Your task to perform on an android device: Go to accessibility settings Image 0: 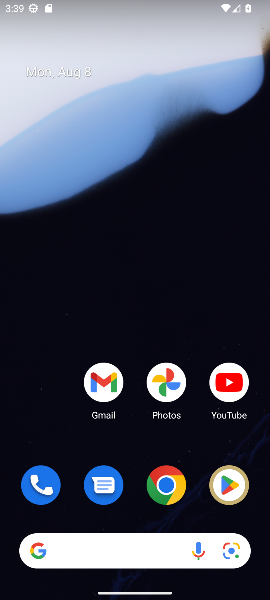
Step 0: drag from (120, 444) to (71, 155)
Your task to perform on an android device: Go to accessibility settings Image 1: 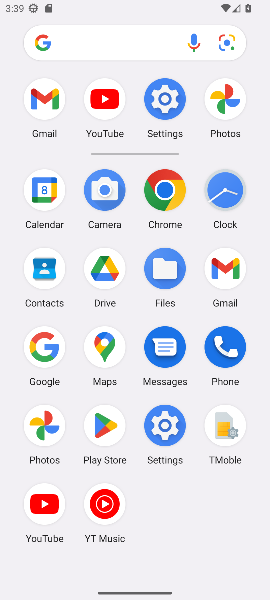
Step 1: click (159, 419)
Your task to perform on an android device: Go to accessibility settings Image 2: 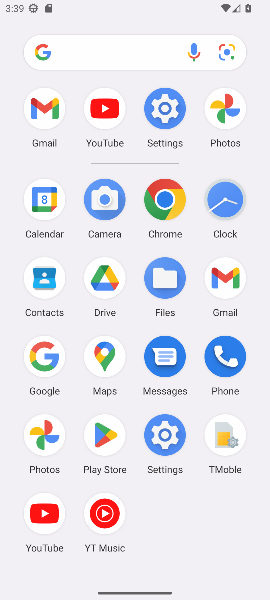
Step 2: click (163, 434)
Your task to perform on an android device: Go to accessibility settings Image 3: 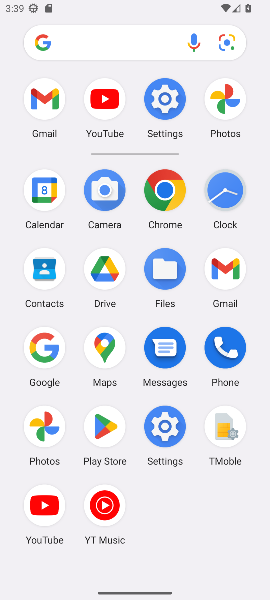
Step 3: click (163, 434)
Your task to perform on an android device: Go to accessibility settings Image 4: 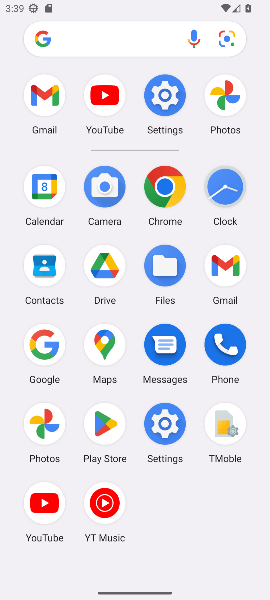
Step 4: click (164, 434)
Your task to perform on an android device: Go to accessibility settings Image 5: 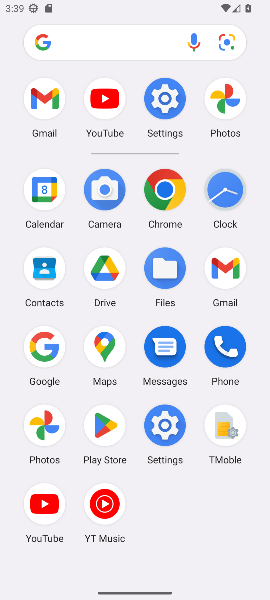
Step 5: click (165, 432)
Your task to perform on an android device: Go to accessibility settings Image 6: 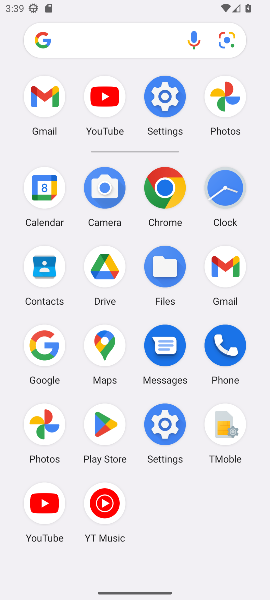
Step 6: click (165, 432)
Your task to perform on an android device: Go to accessibility settings Image 7: 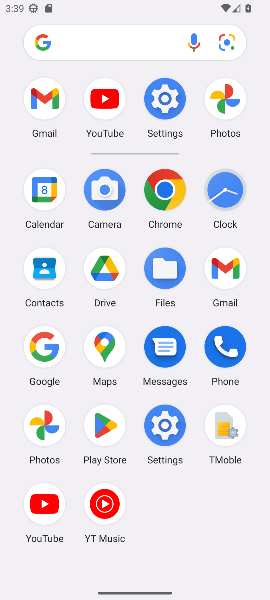
Step 7: click (166, 432)
Your task to perform on an android device: Go to accessibility settings Image 8: 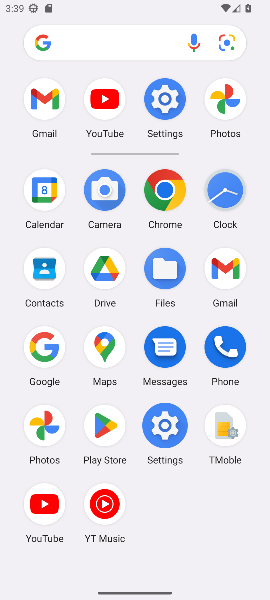
Step 8: click (166, 432)
Your task to perform on an android device: Go to accessibility settings Image 9: 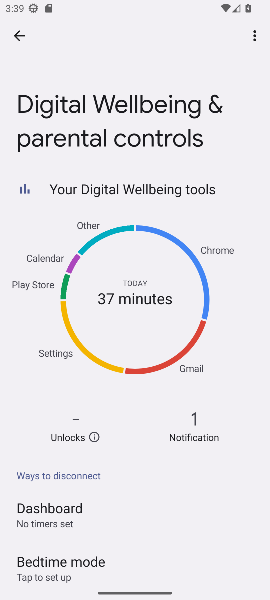
Step 9: click (18, 33)
Your task to perform on an android device: Go to accessibility settings Image 10: 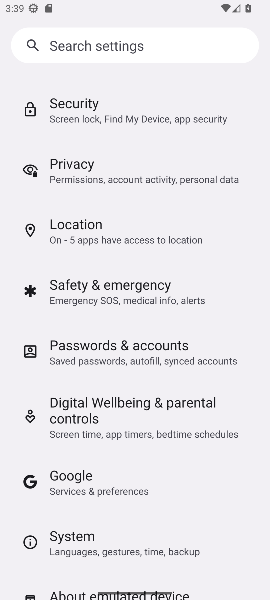
Step 10: press back button
Your task to perform on an android device: Go to accessibility settings Image 11: 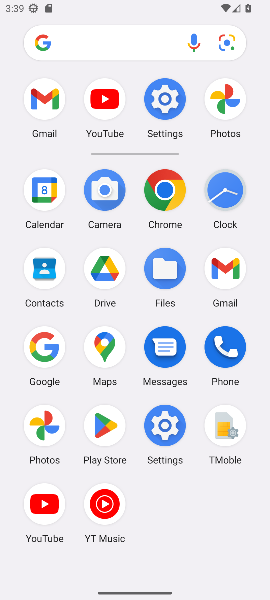
Step 11: click (168, 197)
Your task to perform on an android device: Go to accessibility settings Image 12: 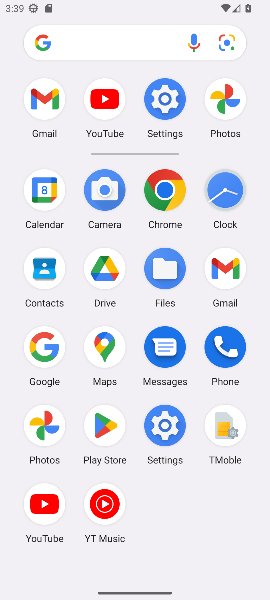
Step 12: click (168, 197)
Your task to perform on an android device: Go to accessibility settings Image 13: 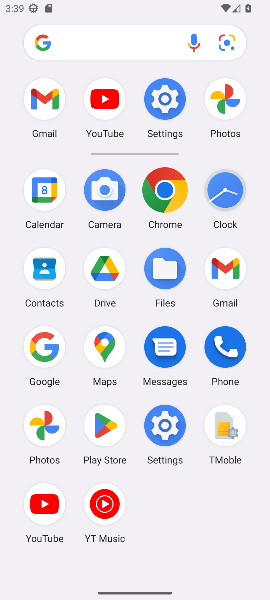
Step 13: click (168, 197)
Your task to perform on an android device: Go to accessibility settings Image 14: 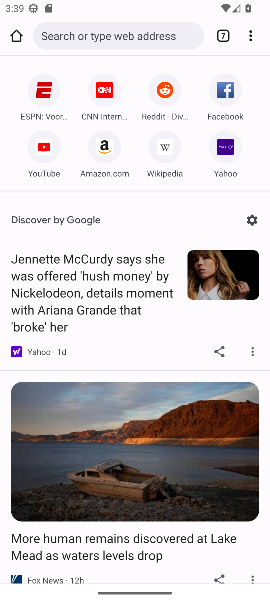
Step 14: click (168, 197)
Your task to perform on an android device: Go to accessibility settings Image 15: 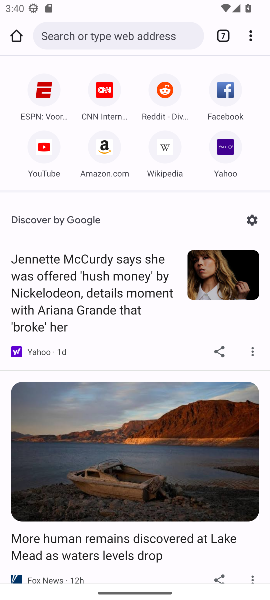
Step 15: click (248, 34)
Your task to perform on an android device: Go to accessibility settings Image 16: 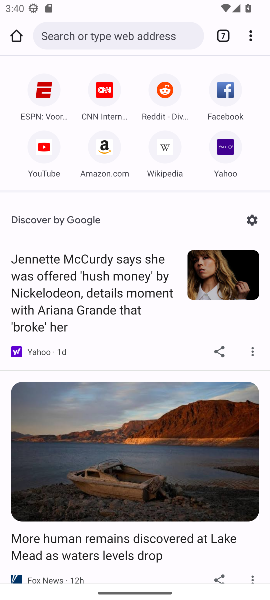
Step 16: drag from (252, 33) to (136, 336)
Your task to perform on an android device: Go to accessibility settings Image 17: 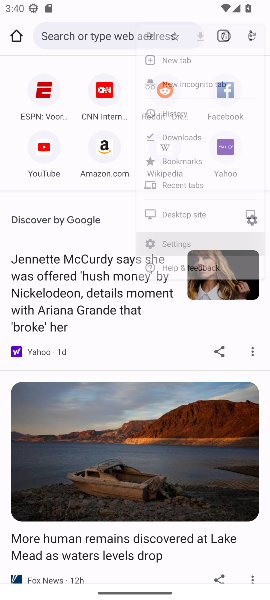
Step 17: click (137, 337)
Your task to perform on an android device: Go to accessibility settings Image 18: 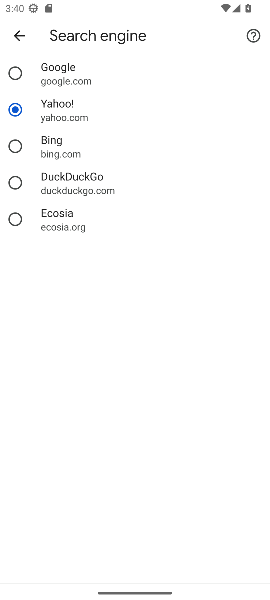
Step 18: click (13, 35)
Your task to perform on an android device: Go to accessibility settings Image 19: 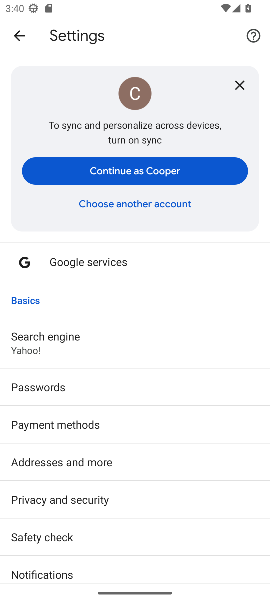
Step 19: drag from (100, 490) to (96, 232)
Your task to perform on an android device: Go to accessibility settings Image 20: 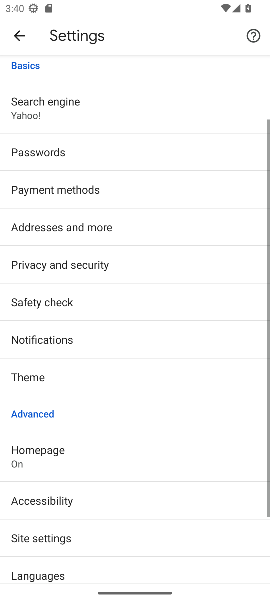
Step 20: drag from (99, 380) to (103, 183)
Your task to perform on an android device: Go to accessibility settings Image 21: 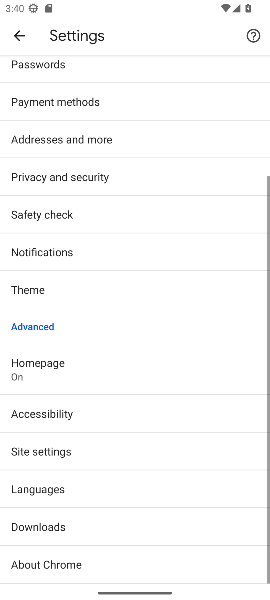
Step 21: drag from (143, 337) to (143, 130)
Your task to perform on an android device: Go to accessibility settings Image 22: 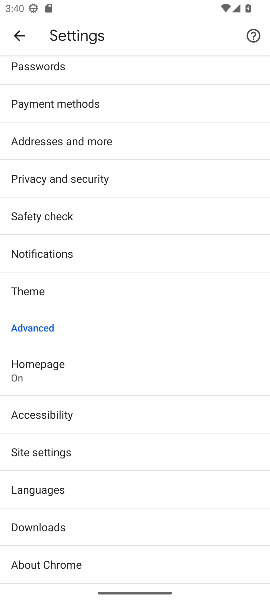
Step 22: drag from (64, 513) to (30, 172)
Your task to perform on an android device: Go to accessibility settings Image 23: 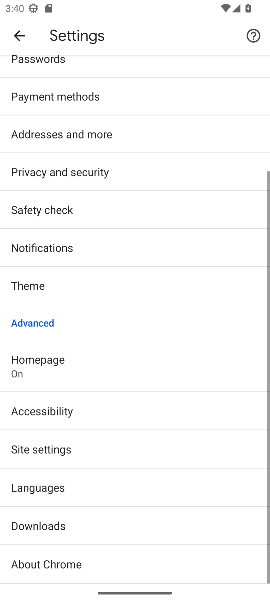
Step 23: drag from (79, 447) to (79, 140)
Your task to perform on an android device: Go to accessibility settings Image 24: 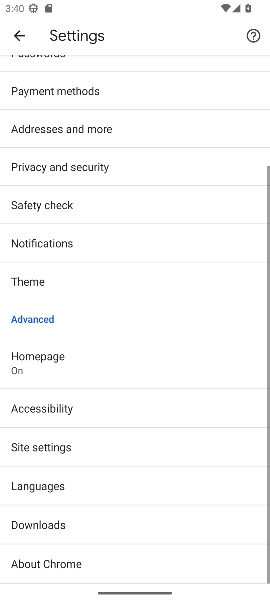
Step 24: drag from (79, 432) to (78, 210)
Your task to perform on an android device: Go to accessibility settings Image 25: 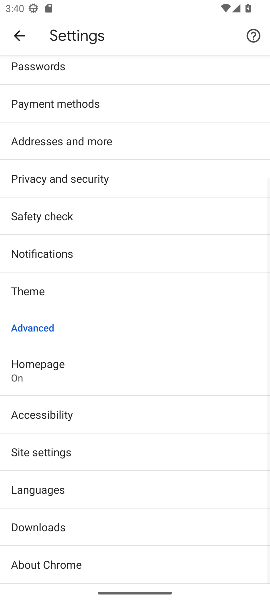
Step 25: click (31, 415)
Your task to perform on an android device: Go to accessibility settings Image 26: 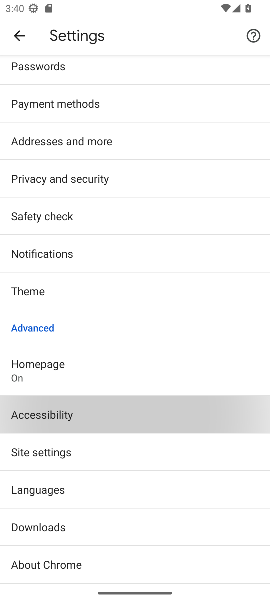
Step 26: click (31, 415)
Your task to perform on an android device: Go to accessibility settings Image 27: 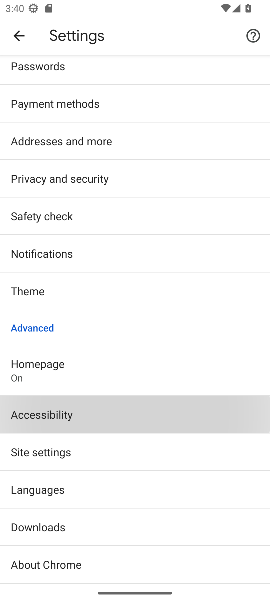
Step 27: click (30, 417)
Your task to perform on an android device: Go to accessibility settings Image 28: 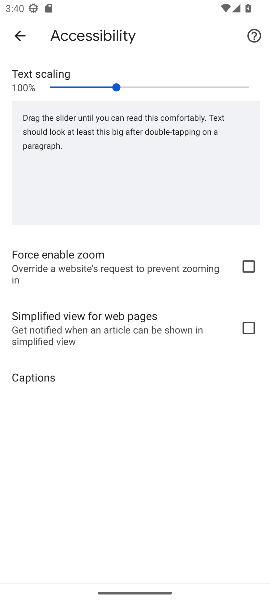
Step 28: click (30, 417)
Your task to perform on an android device: Go to accessibility settings Image 29: 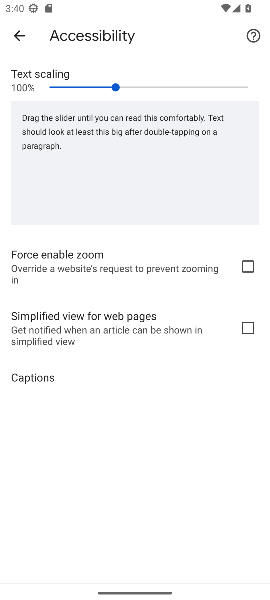
Step 29: task complete